Your task to perform on an android device: open app "Google Photos" Image 0: 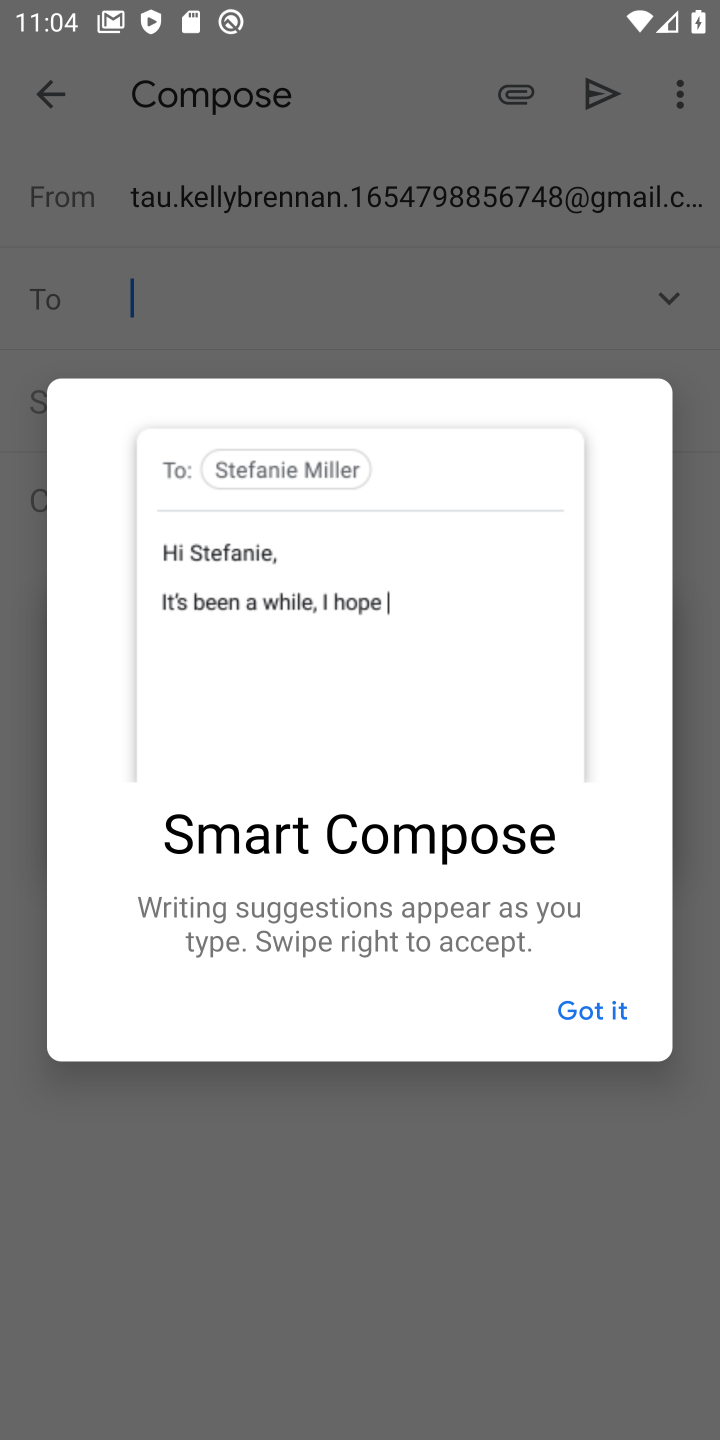
Step 0: press home button
Your task to perform on an android device: open app "Google Photos" Image 1: 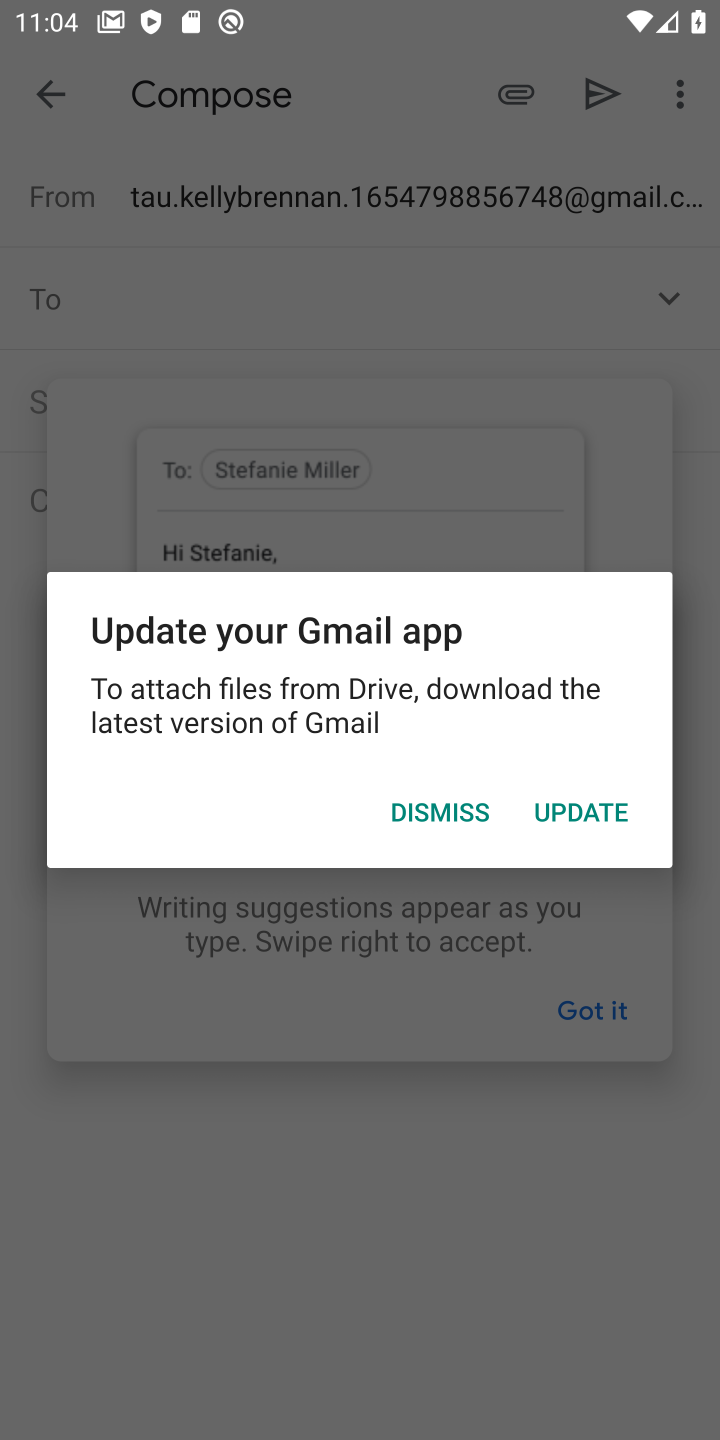
Step 1: click (604, 1012)
Your task to perform on an android device: open app "Google Photos" Image 2: 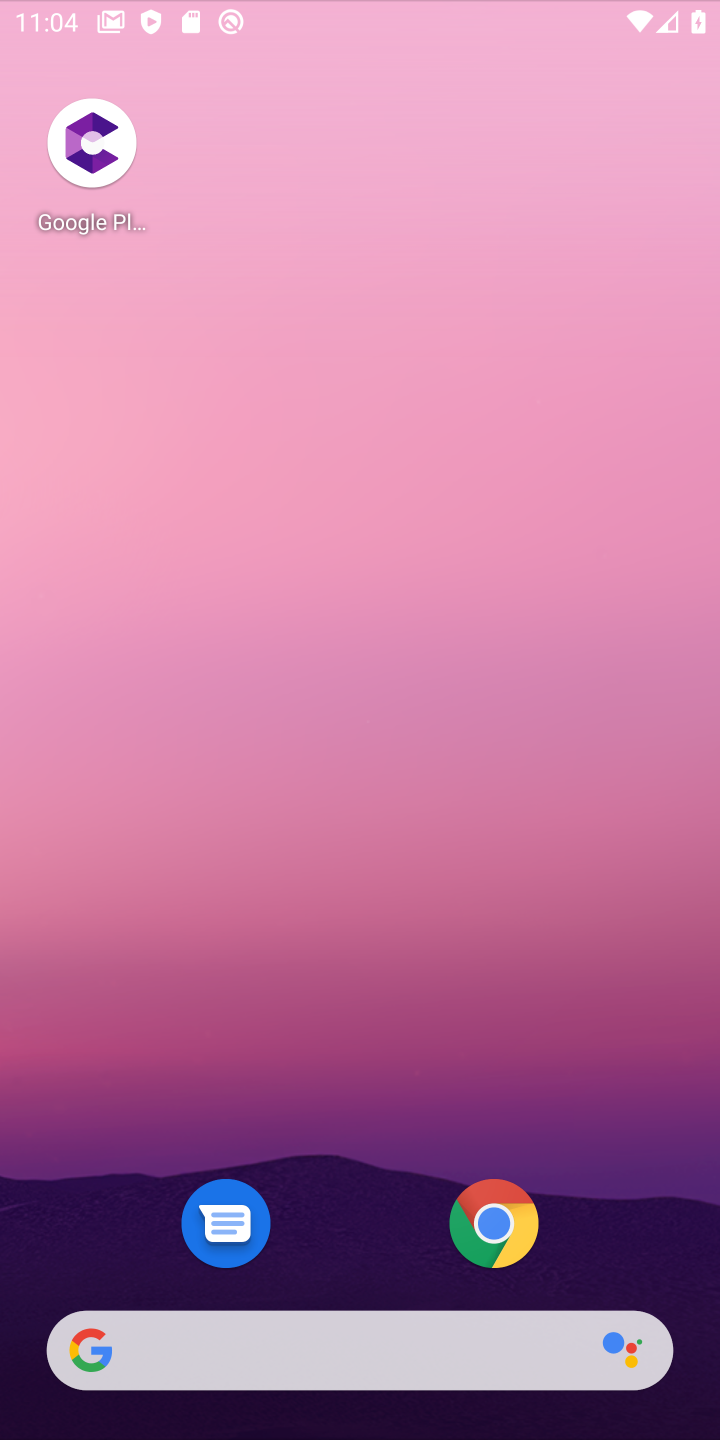
Step 2: press home button
Your task to perform on an android device: open app "Google Photos" Image 3: 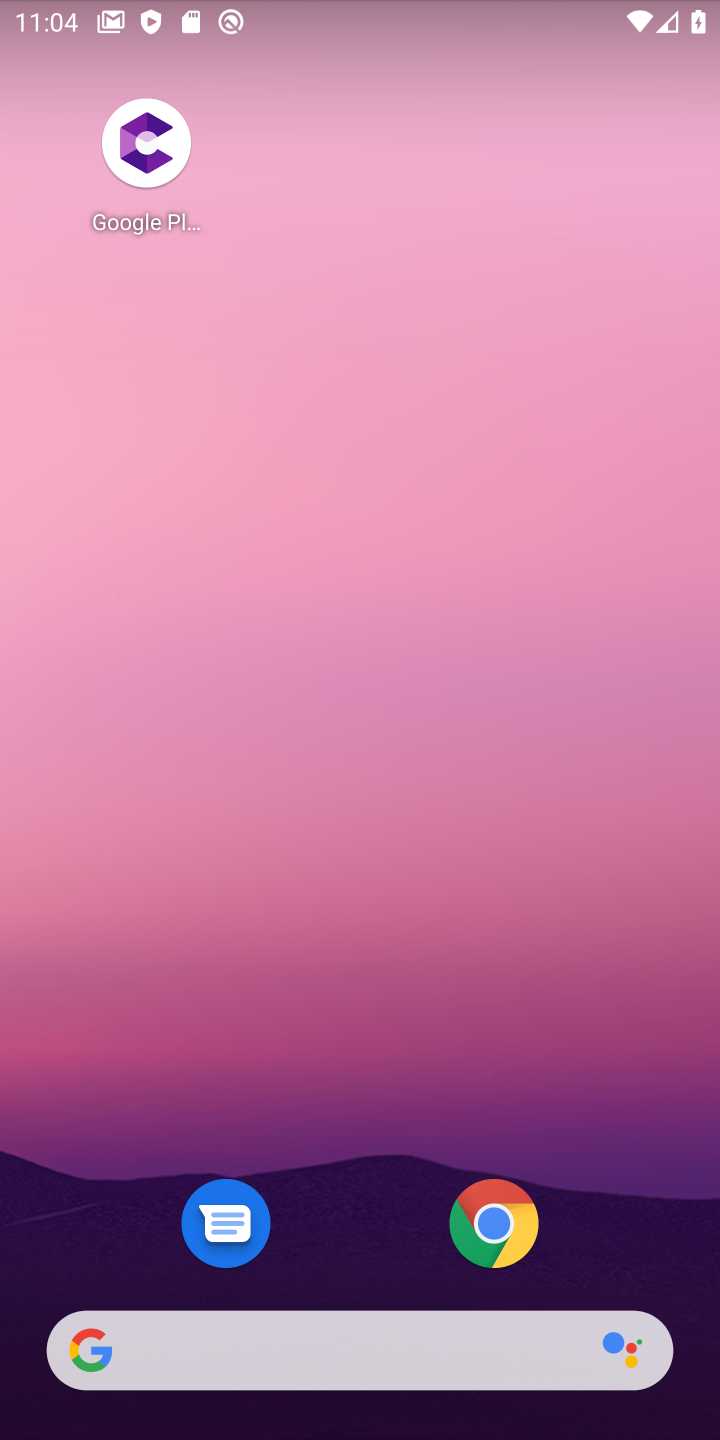
Step 3: drag from (370, 430) to (374, 8)
Your task to perform on an android device: open app "Google Photos" Image 4: 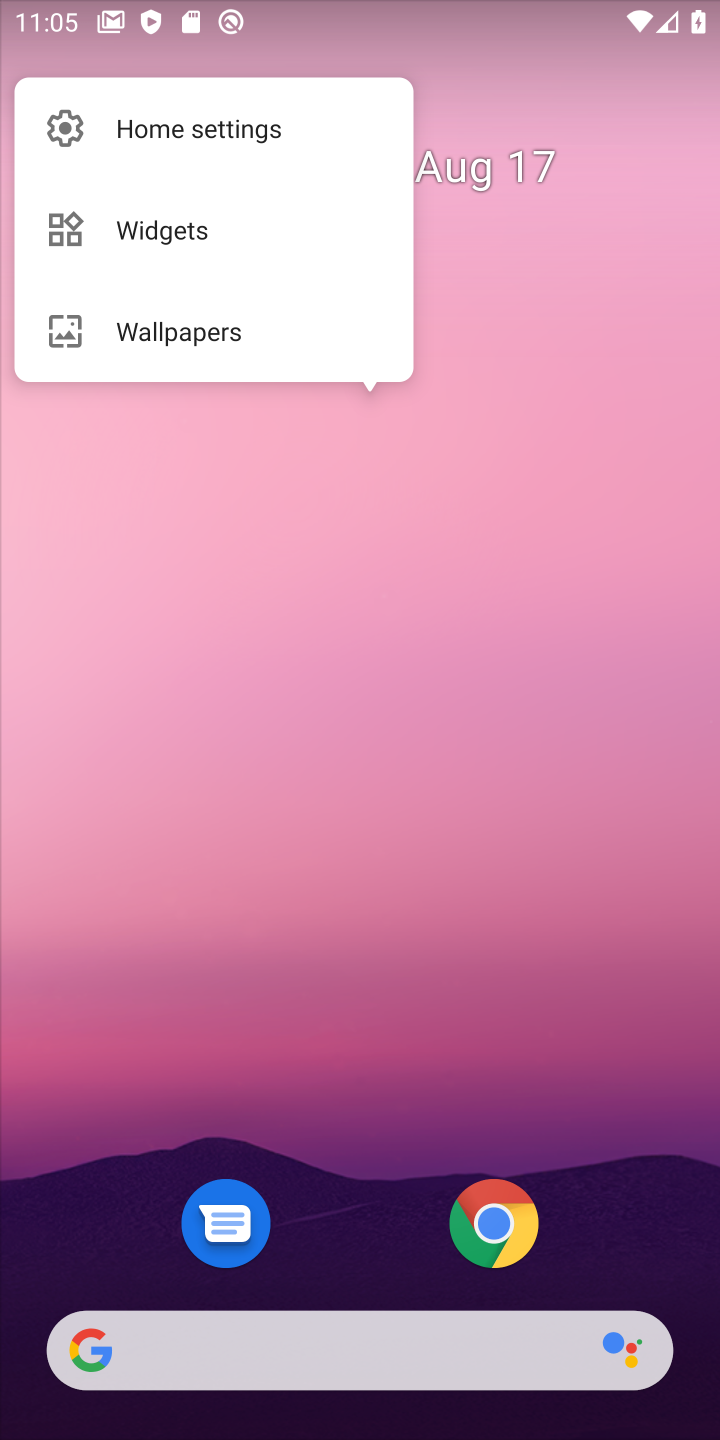
Step 4: click (320, 800)
Your task to perform on an android device: open app "Google Photos" Image 5: 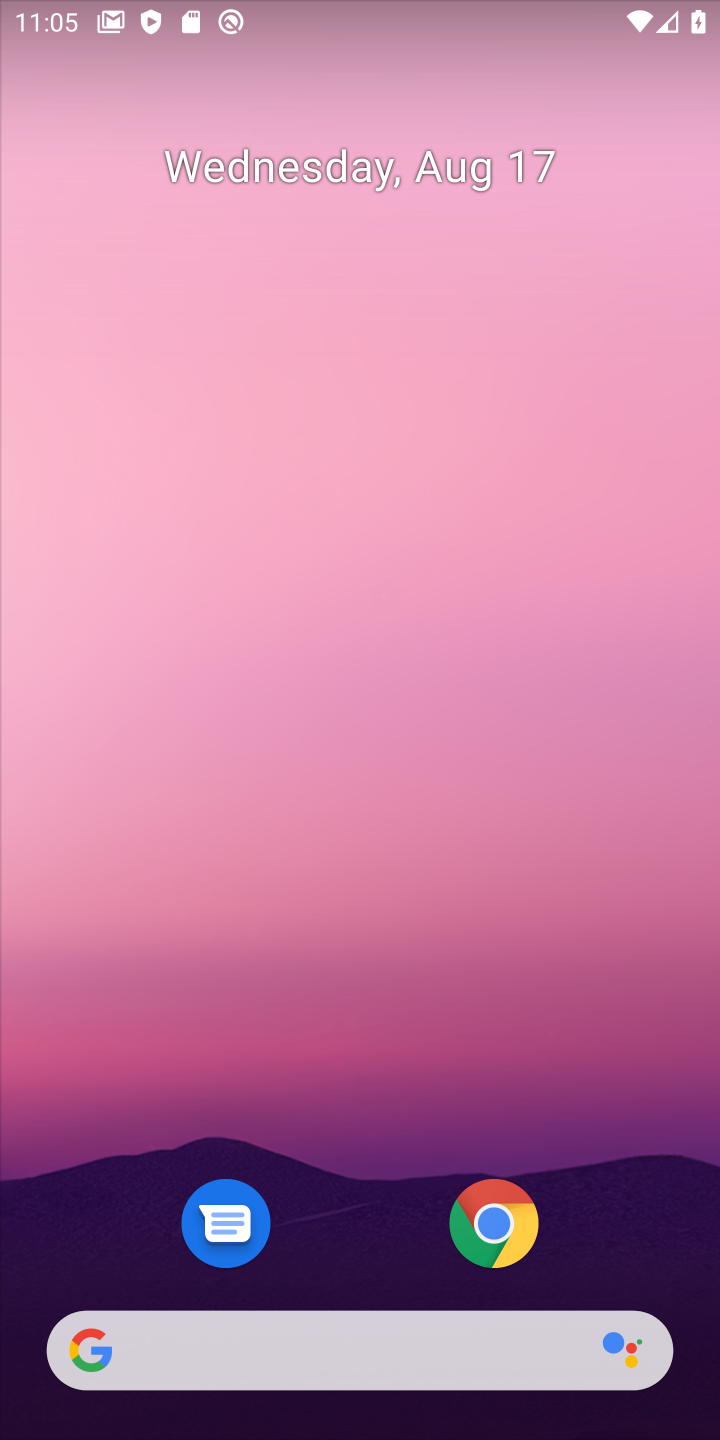
Step 5: drag from (356, 1211) to (363, 298)
Your task to perform on an android device: open app "Google Photos" Image 6: 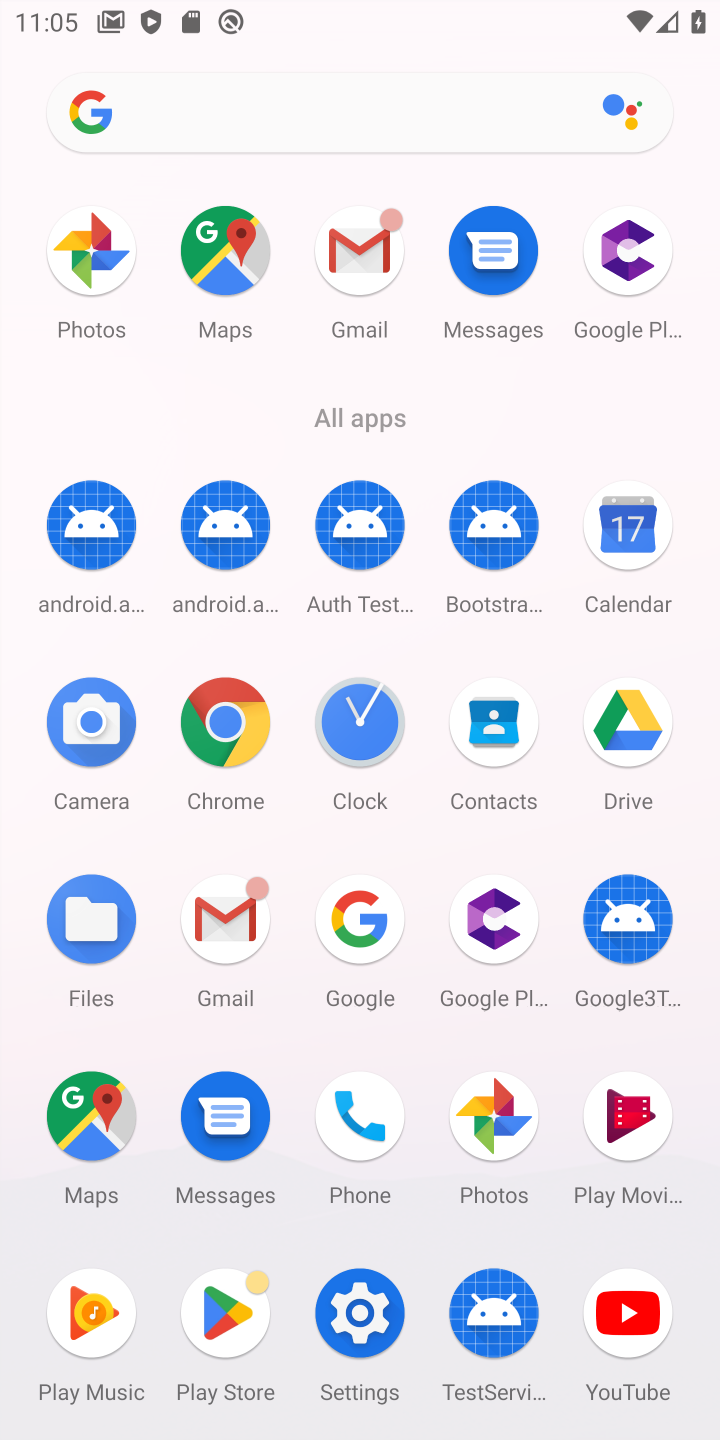
Step 6: click (507, 1115)
Your task to perform on an android device: open app "Google Photos" Image 7: 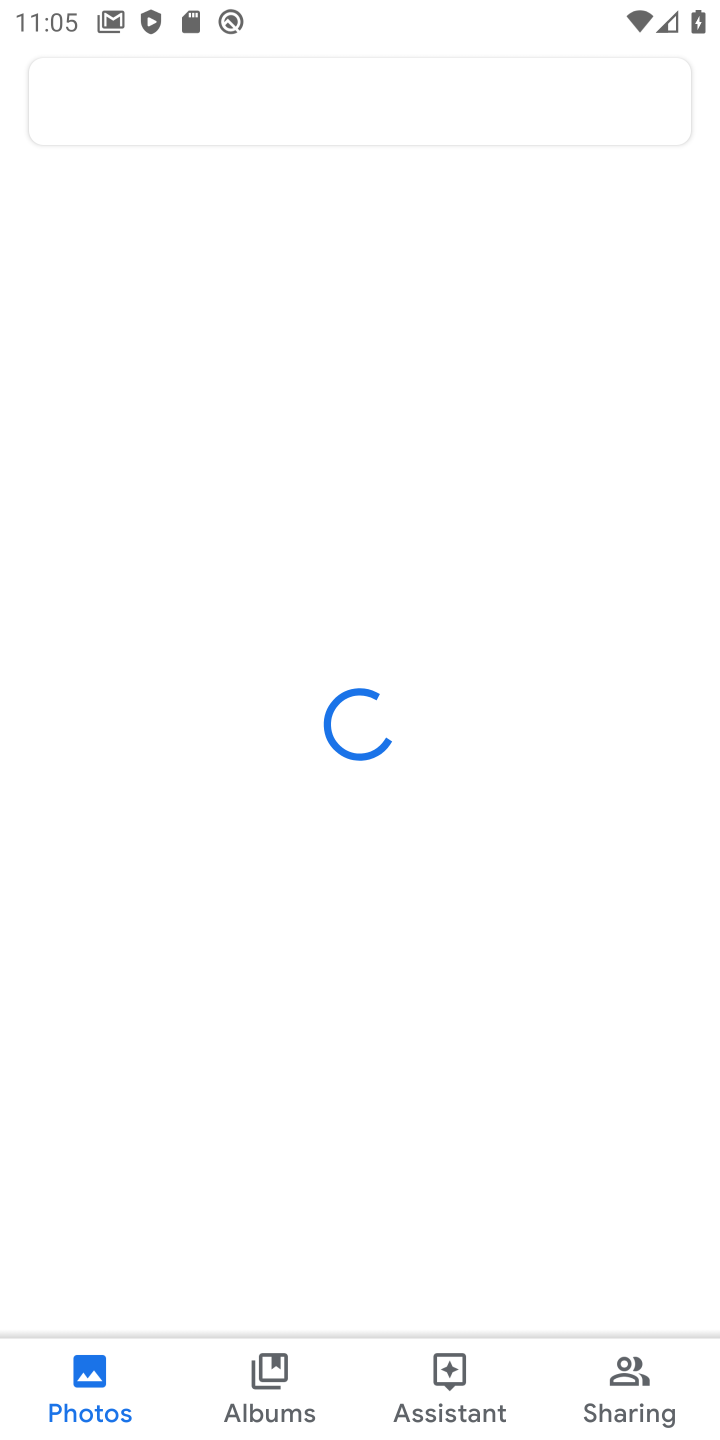
Step 7: task complete